Your task to perform on an android device: open chrome privacy settings Image 0: 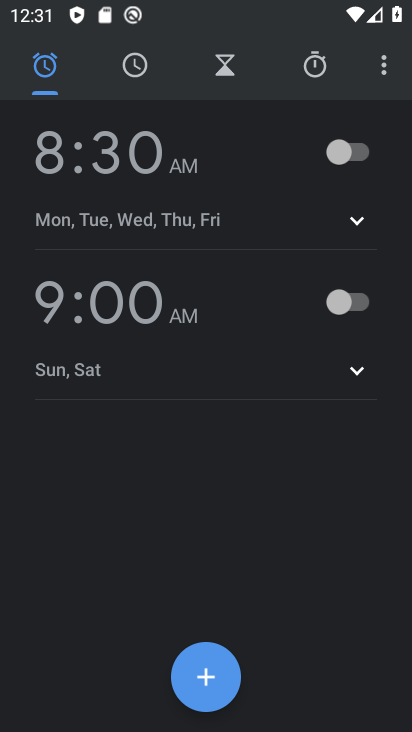
Step 0: press home button
Your task to perform on an android device: open chrome privacy settings Image 1: 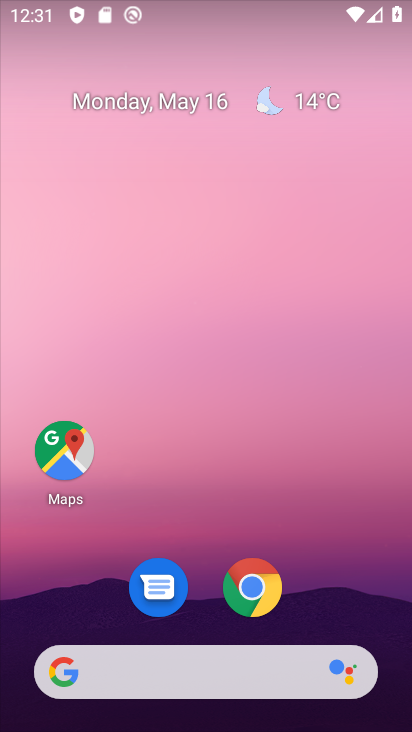
Step 1: click (250, 590)
Your task to perform on an android device: open chrome privacy settings Image 2: 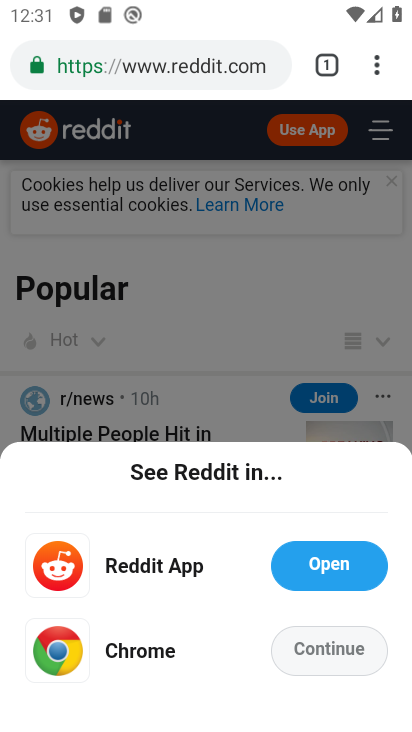
Step 2: click (377, 71)
Your task to perform on an android device: open chrome privacy settings Image 3: 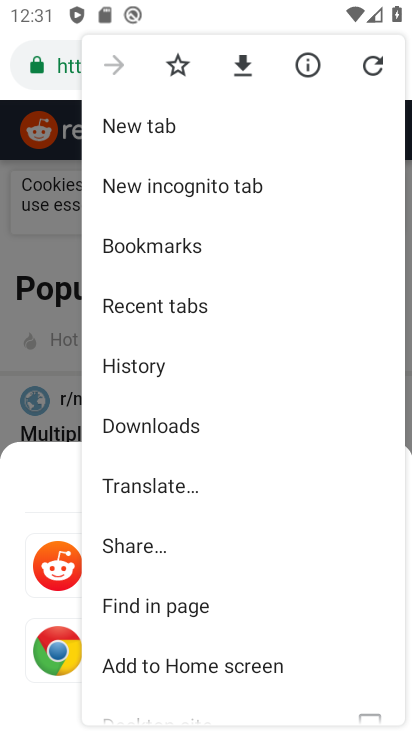
Step 3: drag from (242, 663) to (250, 301)
Your task to perform on an android device: open chrome privacy settings Image 4: 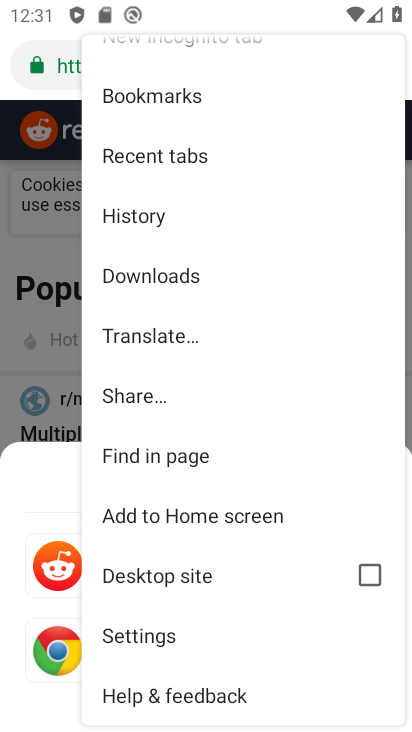
Step 4: click (127, 630)
Your task to perform on an android device: open chrome privacy settings Image 5: 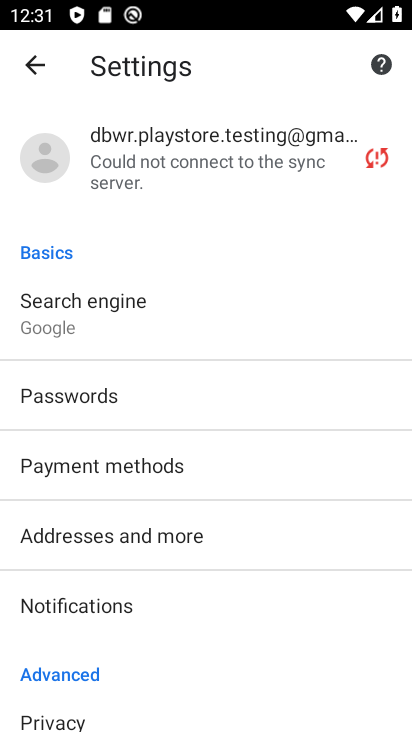
Step 5: click (60, 709)
Your task to perform on an android device: open chrome privacy settings Image 6: 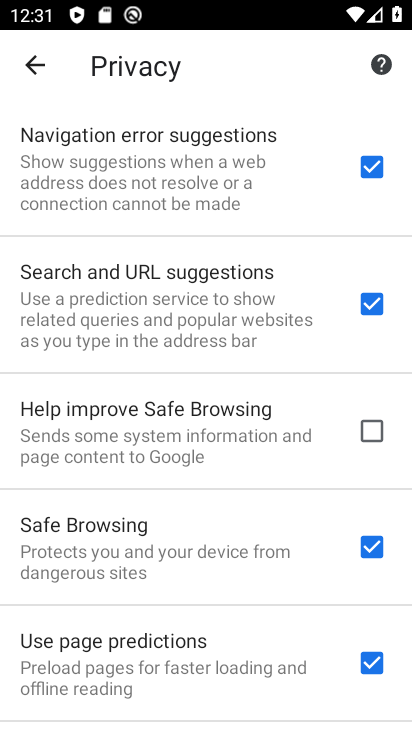
Step 6: task complete